Your task to perform on an android device: Open the Play Movies app and select the watchlist tab. Image 0: 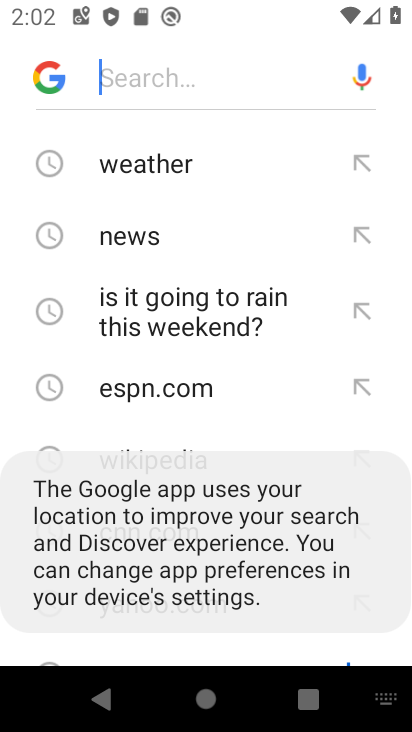
Step 0: press home button
Your task to perform on an android device: Open the Play Movies app and select the watchlist tab. Image 1: 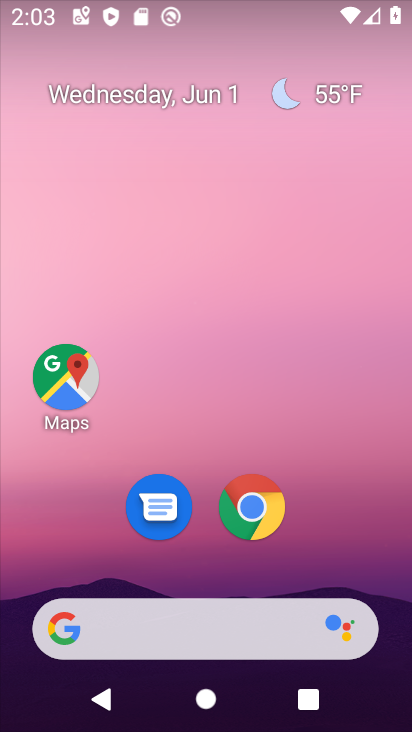
Step 1: drag from (356, 579) to (352, 12)
Your task to perform on an android device: Open the Play Movies app and select the watchlist tab. Image 2: 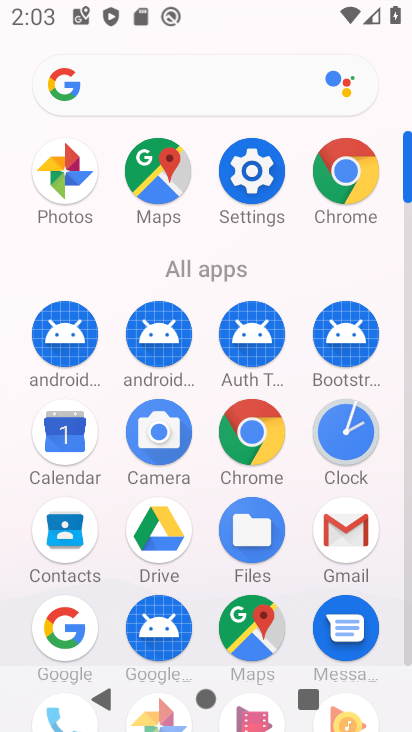
Step 2: drag from (406, 577) to (411, 543)
Your task to perform on an android device: Open the Play Movies app and select the watchlist tab. Image 3: 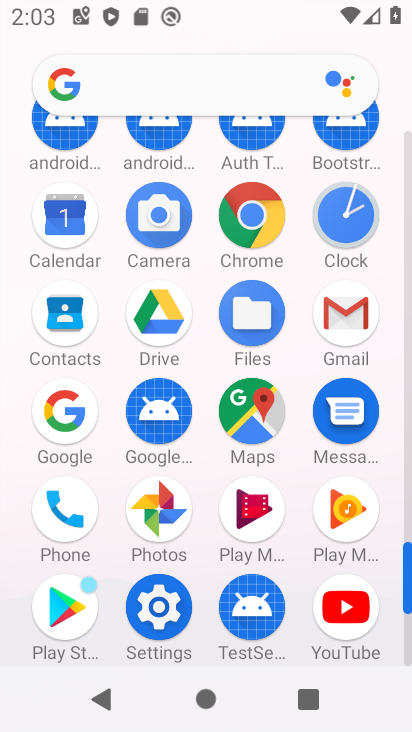
Step 3: click (244, 519)
Your task to perform on an android device: Open the Play Movies app and select the watchlist tab. Image 4: 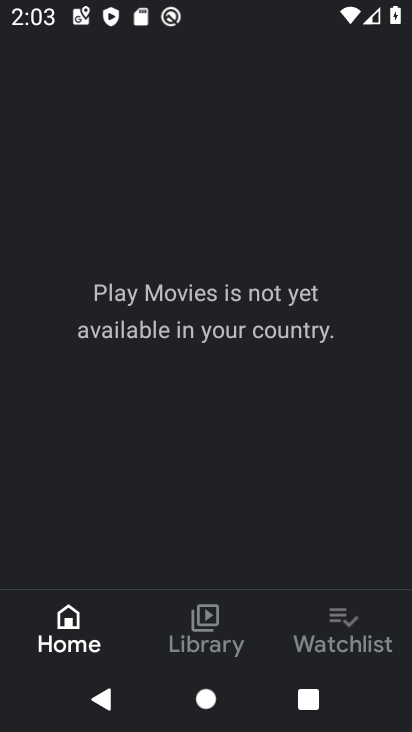
Step 4: click (333, 624)
Your task to perform on an android device: Open the Play Movies app and select the watchlist tab. Image 5: 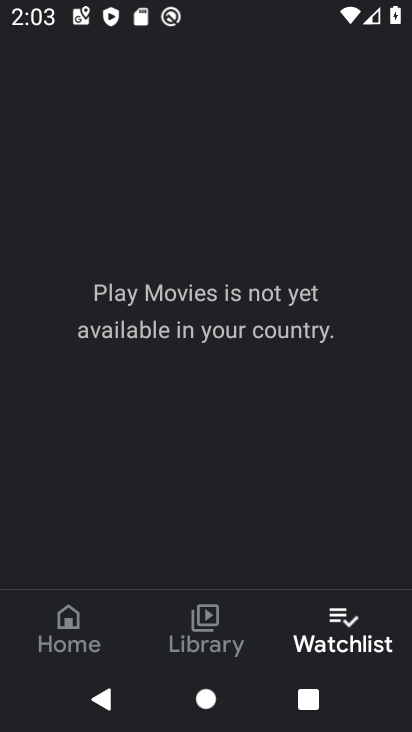
Step 5: task complete